Your task to perform on an android device: turn on javascript in the chrome app Image 0: 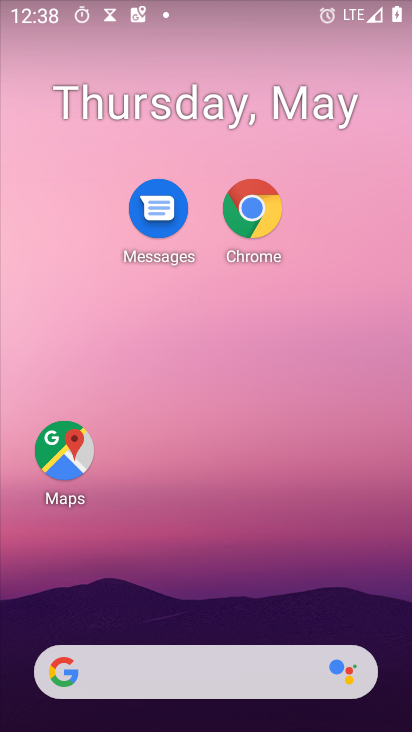
Step 0: drag from (223, 587) to (226, 70)
Your task to perform on an android device: turn on javascript in the chrome app Image 1: 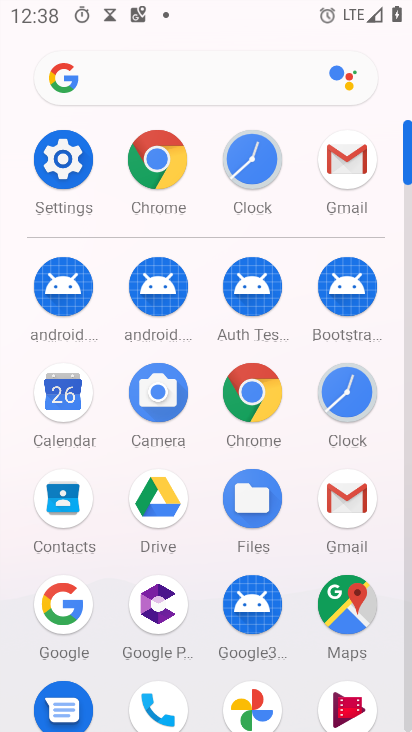
Step 1: click (141, 176)
Your task to perform on an android device: turn on javascript in the chrome app Image 2: 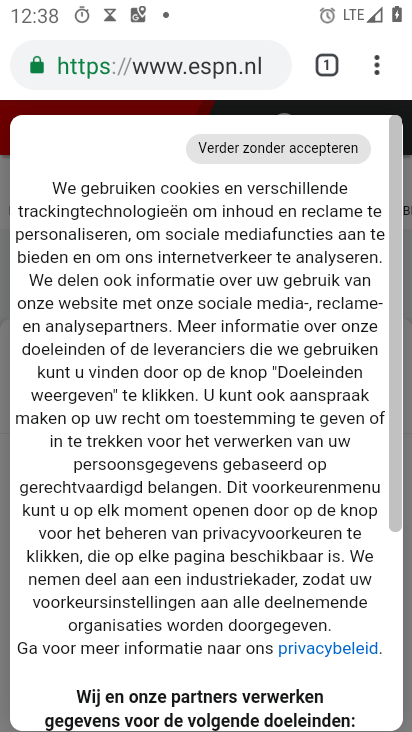
Step 2: click (380, 57)
Your task to perform on an android device: turn on javascript in the chrome app Image 3: 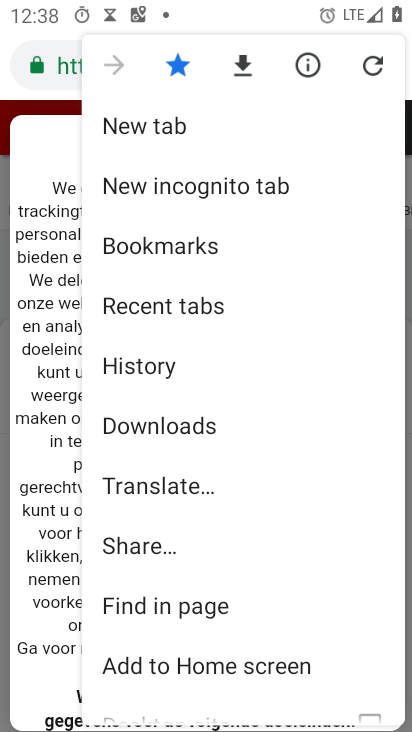
Step 3: drag from (208, 528) to (197, 192)
Your task to perform on an android device: turn on javascript in the chrome app Image 4: 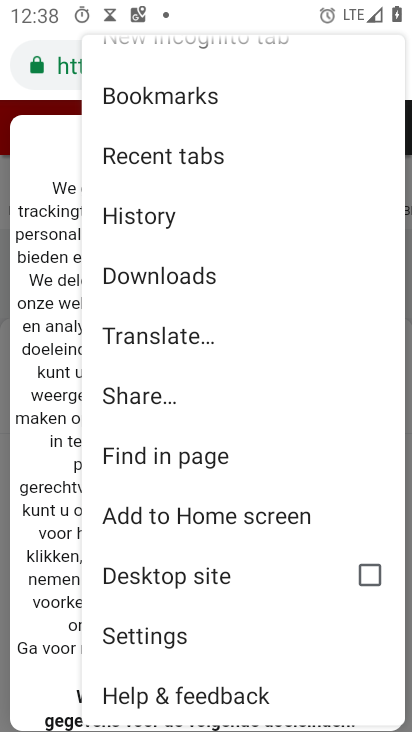
Step 4: click (155, 632)
Your task to perform on an android device: turn on javascript in the chrome app Image 5: 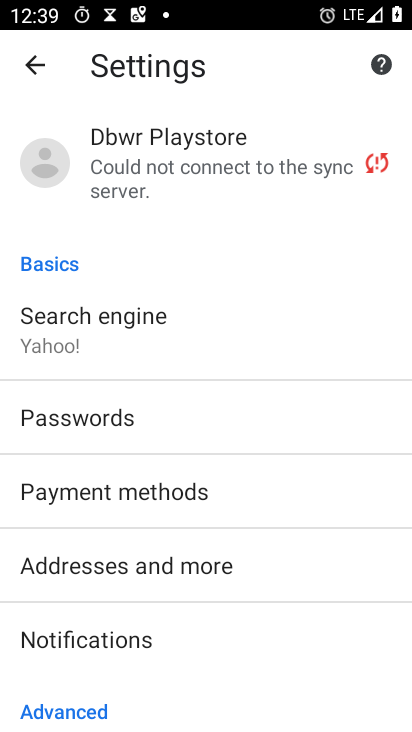
Step 5: drag from (141, 630) to (151, 52)
Your task to perform on an android device: turn on javascript in the chrome app Image 6: 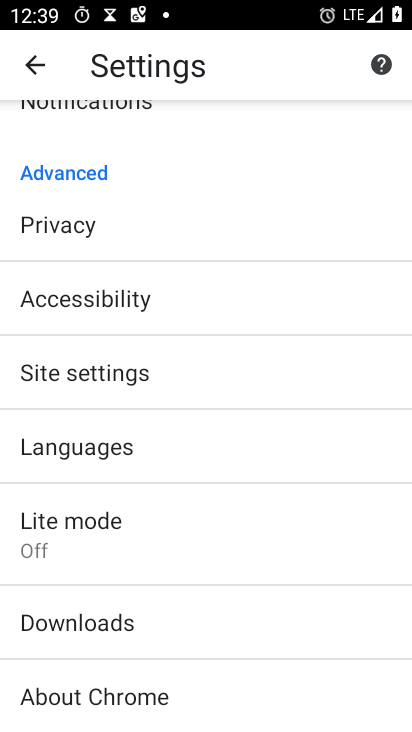
Step 6: click (72, 384)
Your task to perform on an android device: turn on javascript in the chrome app Image 7: 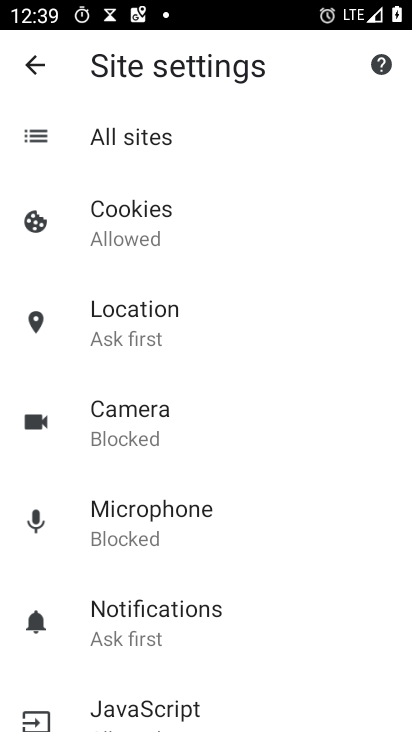
Step 7: click (182, 710)
Your task to perform on an android device: turn on javascript in the chrome app Image 8: 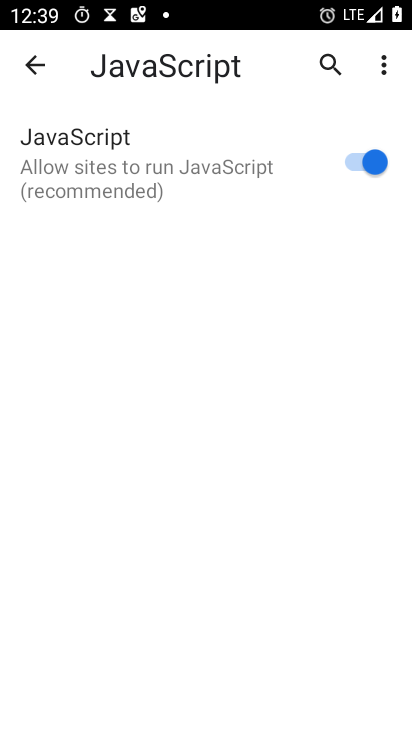
Step 8: task complete